Your task to perform on an android device: allow cookies in the chrome app Image 0: 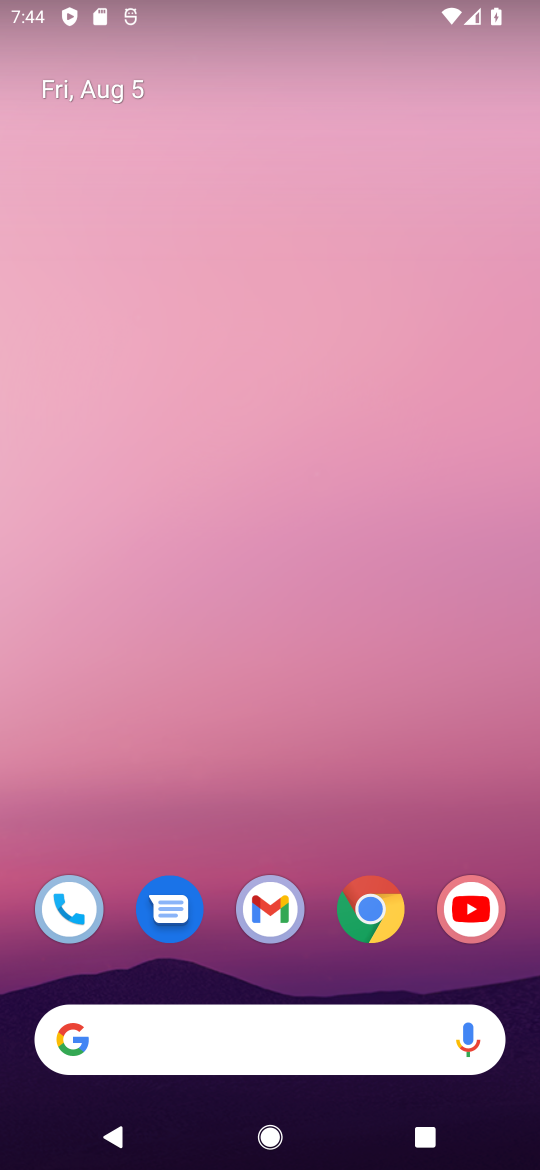
Step 0: press back button
Your task to perform on an android device: allow cookies in the chrome app Image 1: 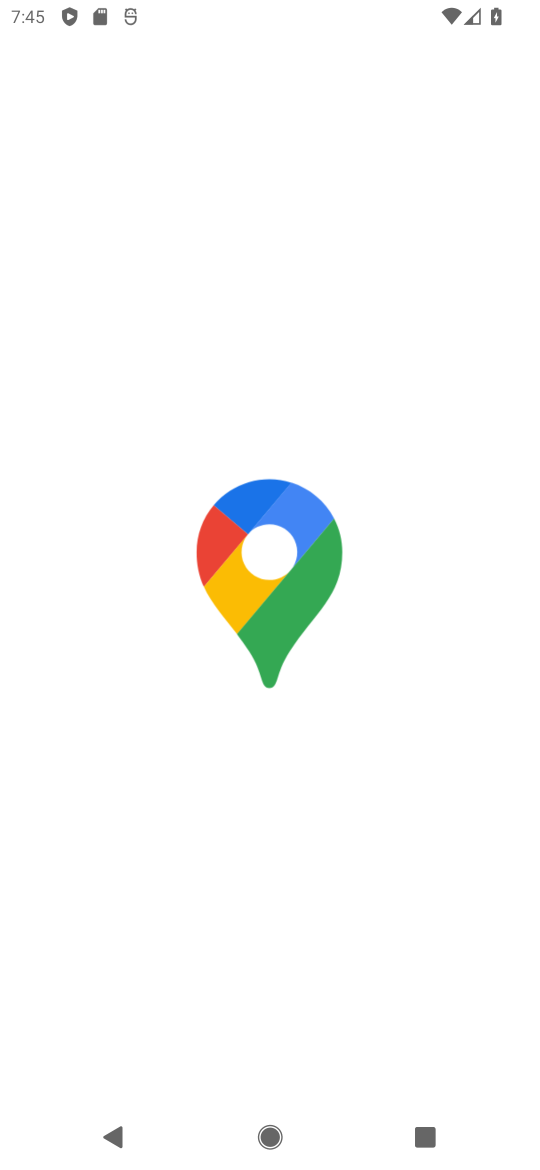
Step 1: press home button
Your task to perform on an android device: allow cookies in the chrome app Image 2: 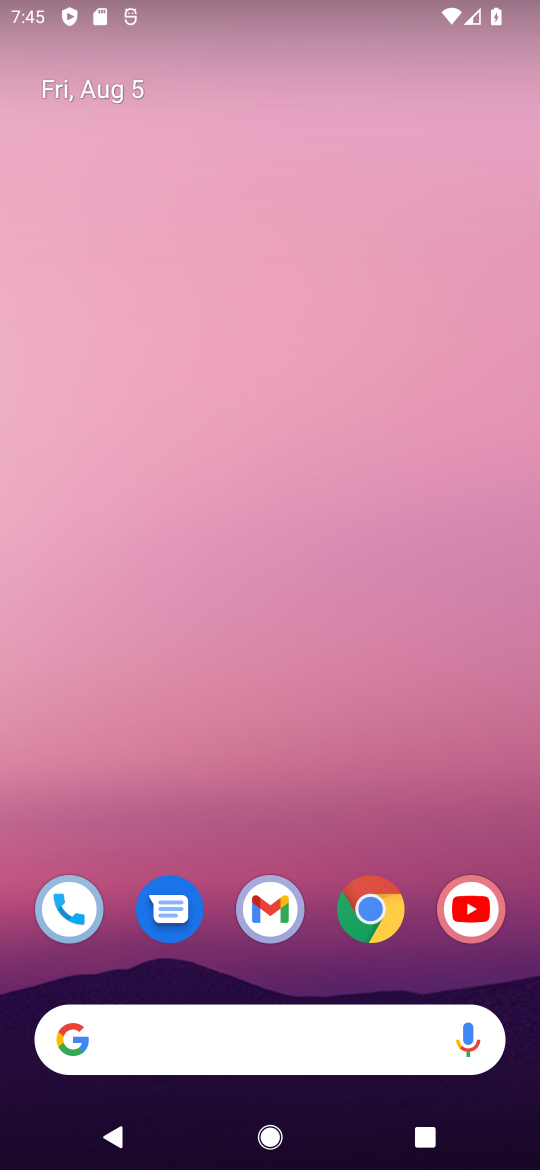
Step 2: click (385, 913)
Your task to perform on an android device: allow cookies in the chrome app Image 3: 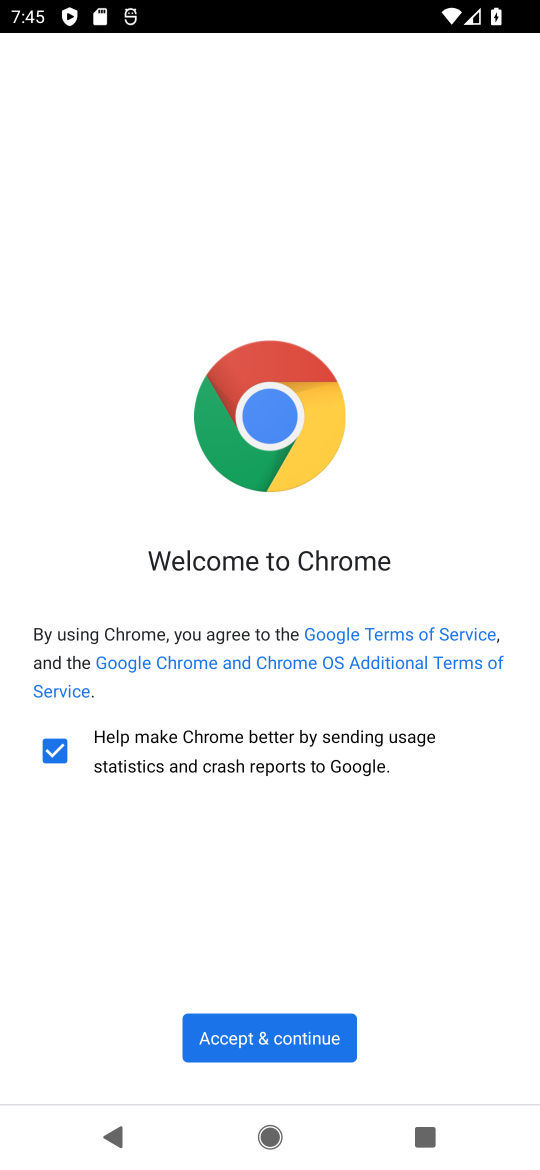
Step 3: click (323, 1061)
Your task to perform on an android device: allow cookies in the chrome app Image 4: 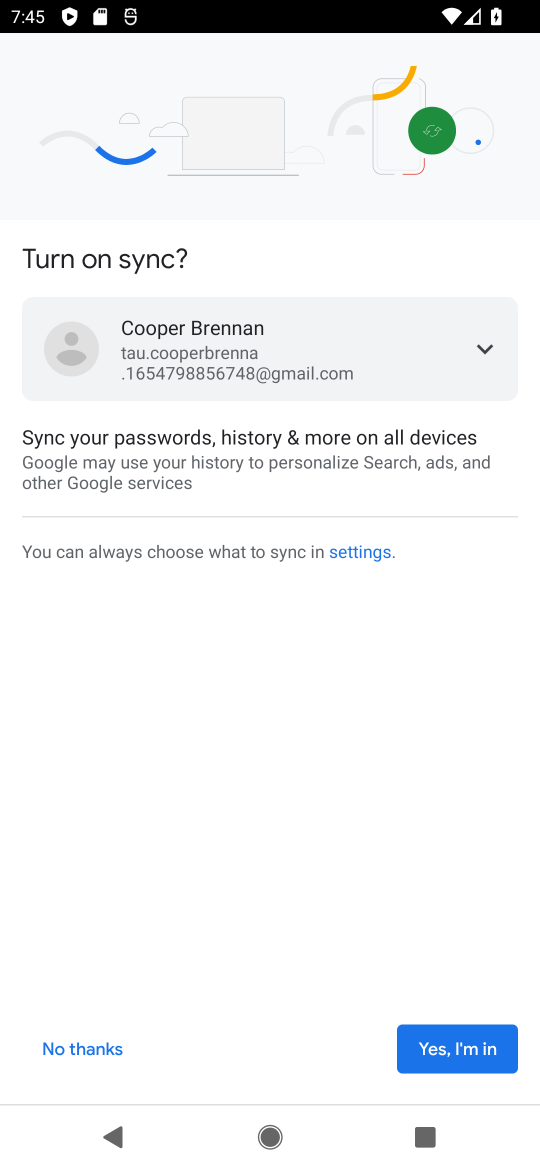
Step 4: click (436, 1048)
Your task to perform on an android device: allow cookies in the chrome app Image 5: 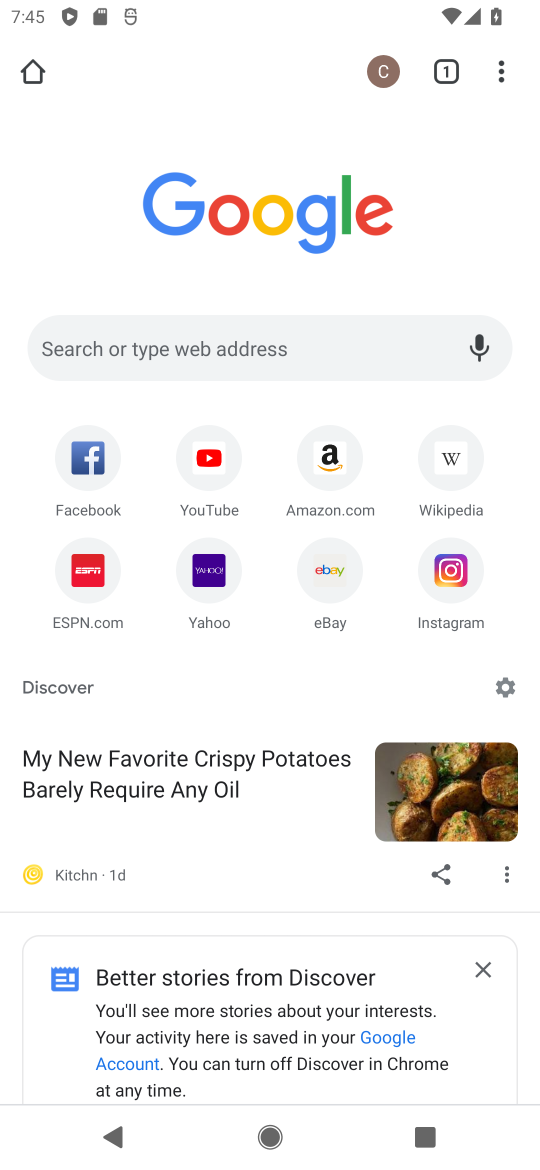
Step 5: click (505, 82)
Your task to perform on an android device: allow cookies in the chrome app Image 6: 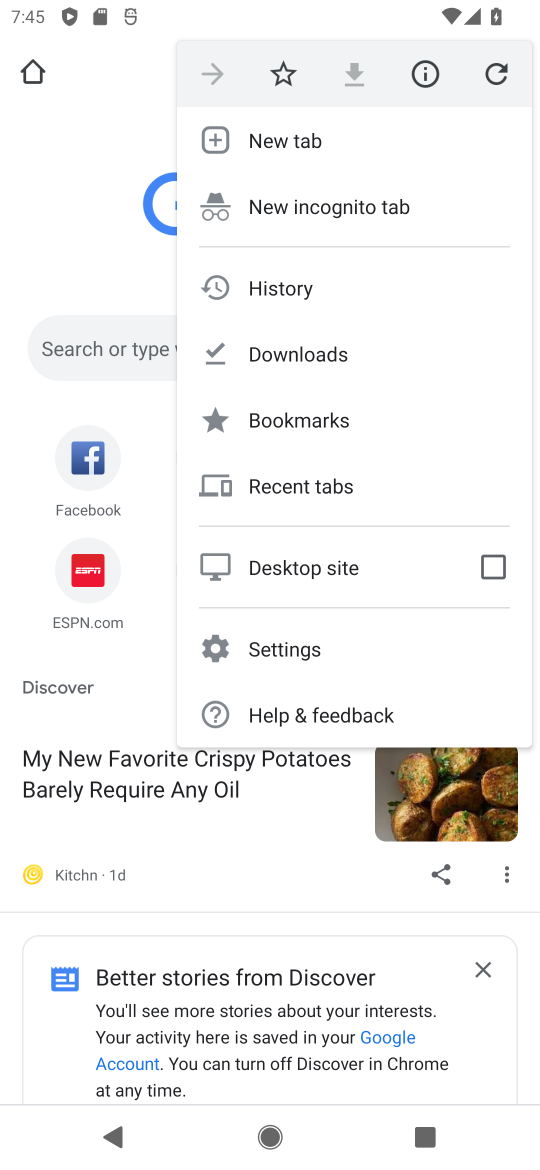
Step 6: click (378, 634)
Your task to perform on an android device: allow cookies in the chrome app Image 7: 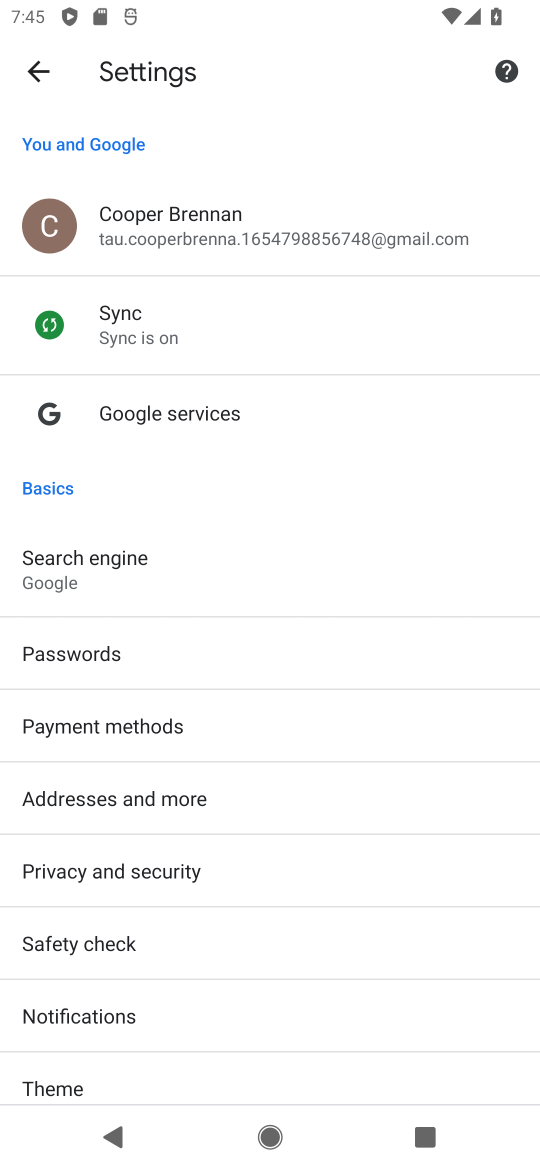
Step 7: drag from (260, 1036) to (231, 426)
Your task to perform on an android device: allow cookies in the chrome app Image 8: 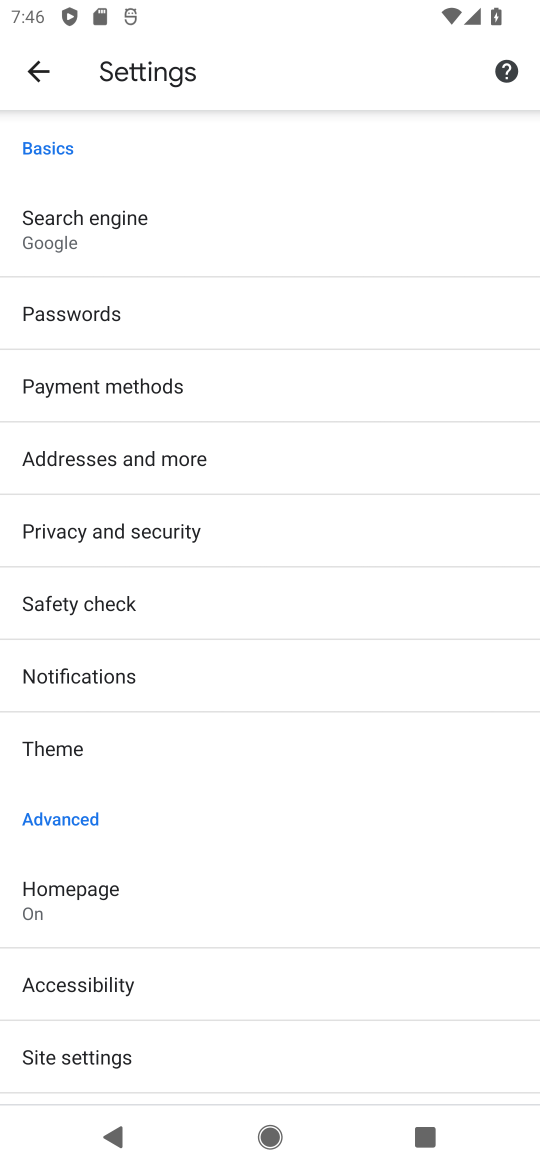
Step 8: click (187, 1048)
Your task to perform on an android device: allow cookies in the chrome app Image 9: 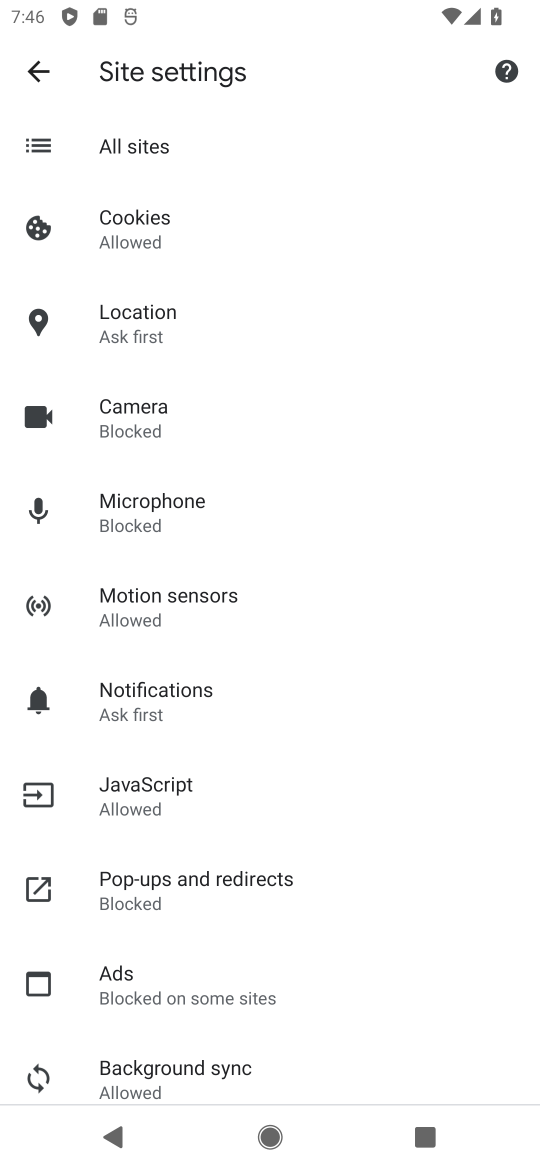
Step 9: click (284, 216)
Your task to perform on an android device: allow cookies in the chrome app Image 10: 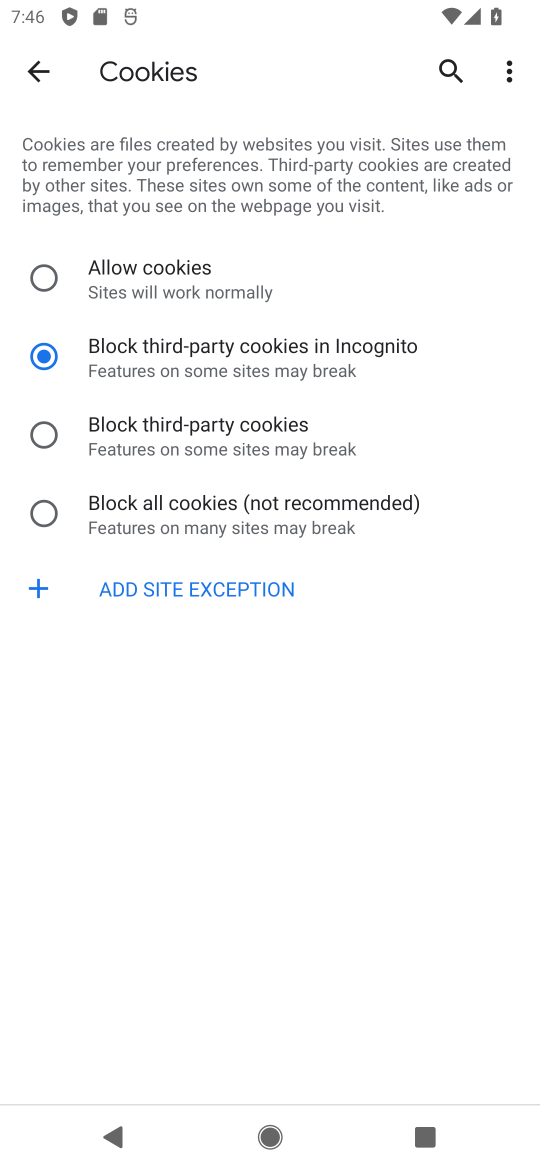
Step 10: click (285, 257)
Your task to perform on an android device: allow cookies in the chrome app Image 11: 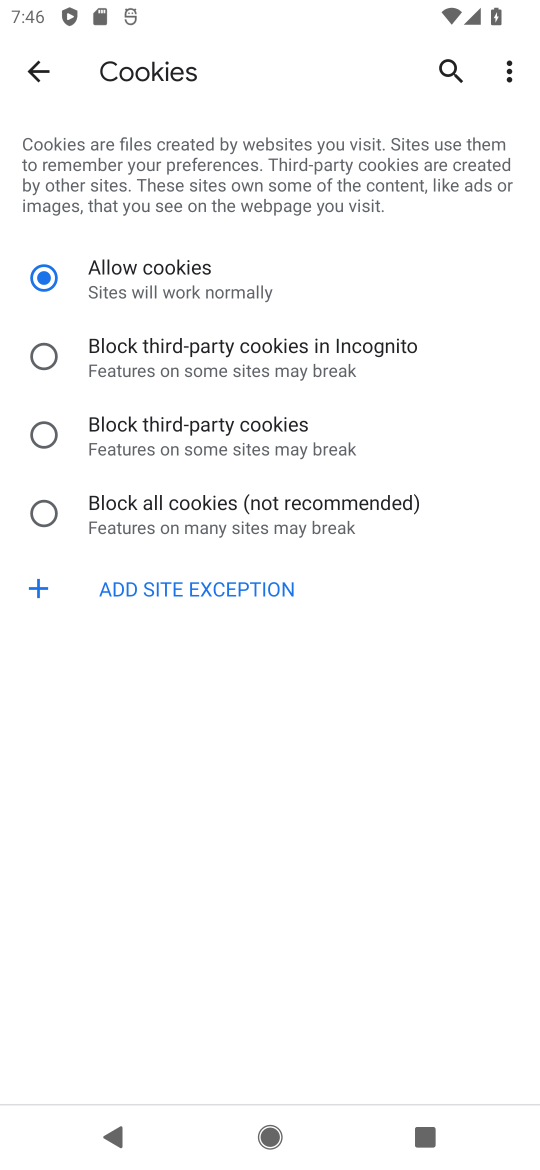
Step 11: task complete